Your task to perform on an android device: turn on the 24-hour format for clock Image 0: 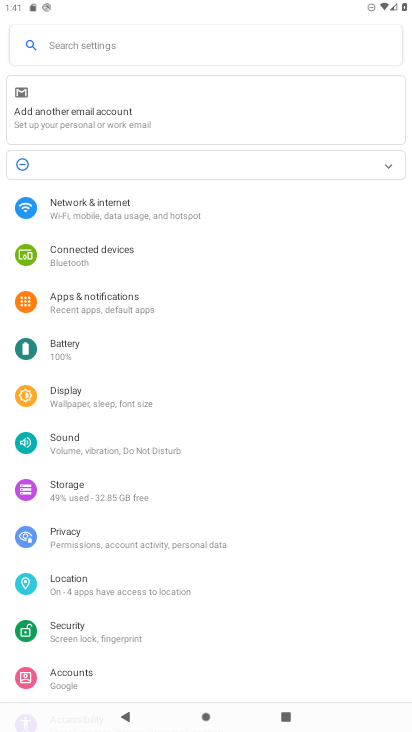
Step 0: press home button
Your task to perform on an android device: turn on the 24-hour format for clock Image 1: 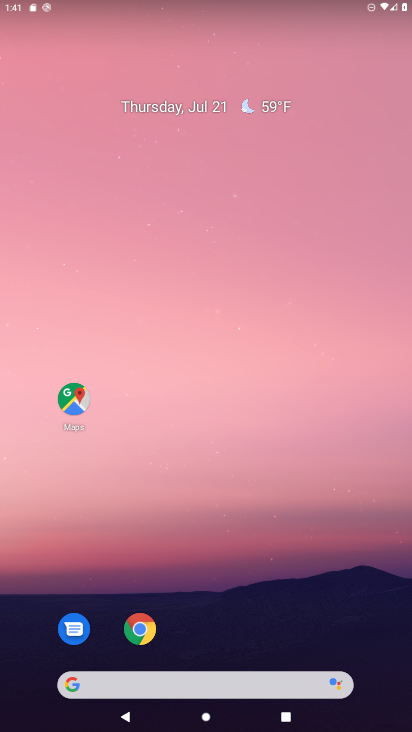
Step 1: drag from (361, 651) to (340, 79)
Your task to perform on an android device: turn on the 24-hour format for clock Image 2: 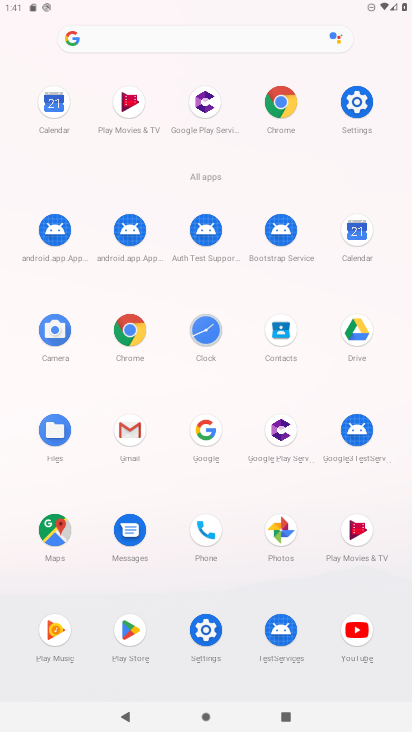
Step 2: click (206, 328)
Your task to perform on an android device: turn on the 24-hour format for clock Image 3: 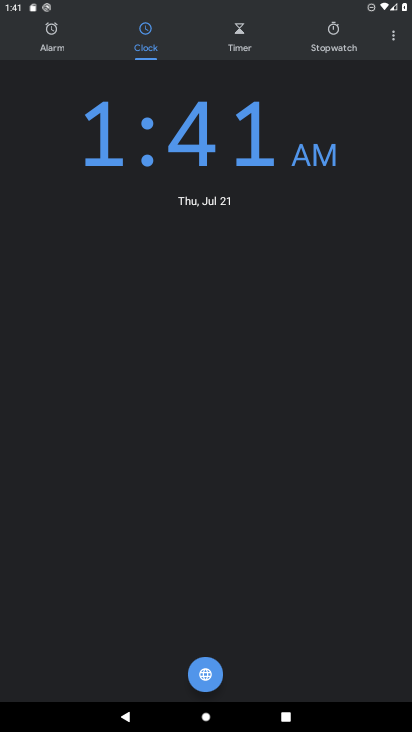
Step 3: click (394, 43)
Your task to perform on an android device: turn on the 24-hour format for clock Image 4: 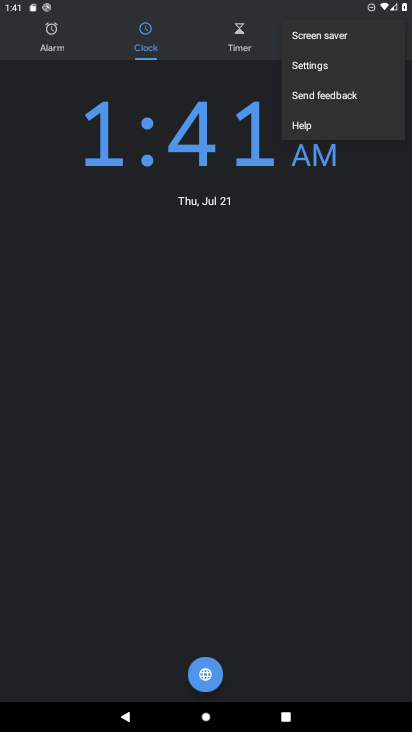
Step 4: click (312, 63)
Your task to perform on an android device: turn on the 24-hour format for clock Image 5: 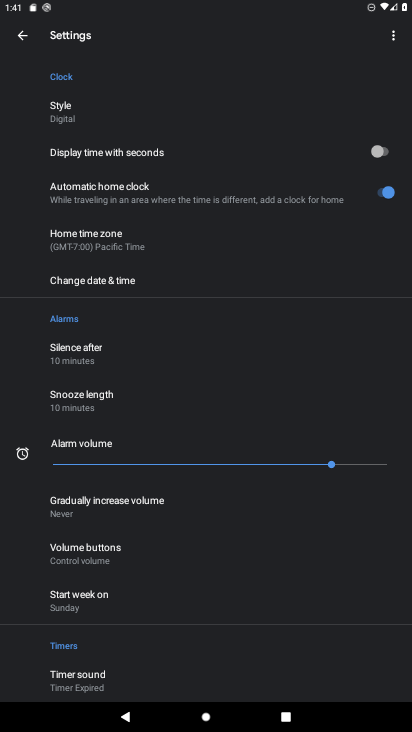
Step 5: click (105, 276)
Your task to perform on an android device: turn on the 24-hour format for clock Image 6: 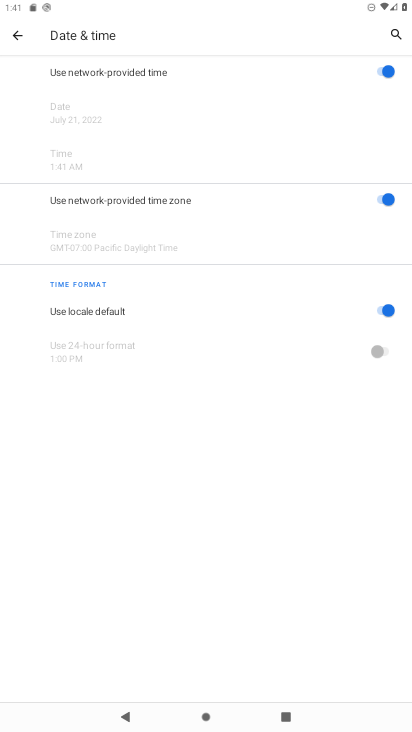
Step 6: click (377, 306)
Your task to perform on an android device: turn on the 24-hour format for clock Image 7: 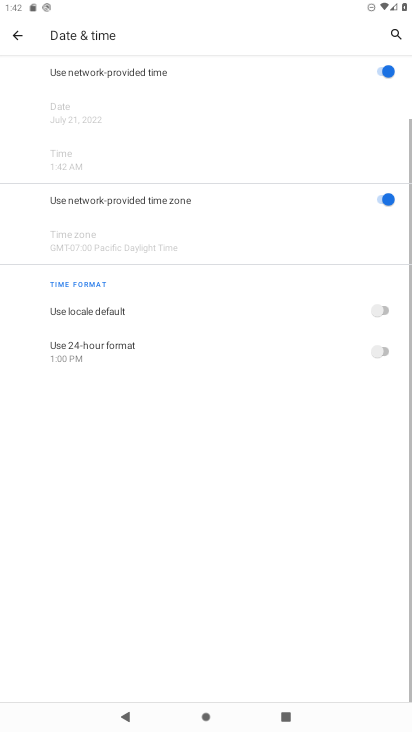
Step 7: click (384, 354)
Your task to perform on an android device: turn on the 24-hour format for clock Image 8: 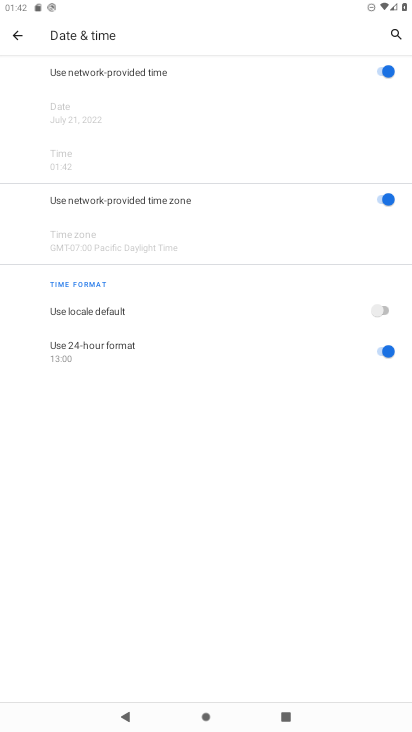
Step 8: task complete